Your task to perform on an android device: check the backup settings in the google photos Image 0: 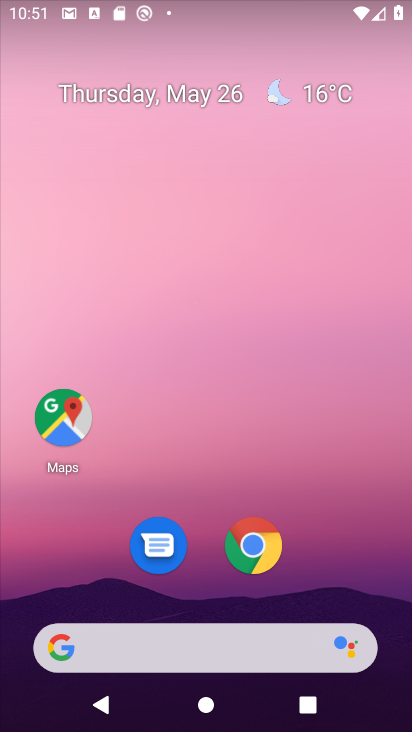
Step 0: press home button
Your task to perform on an android device: check the backup settings in the google photos Image 1: 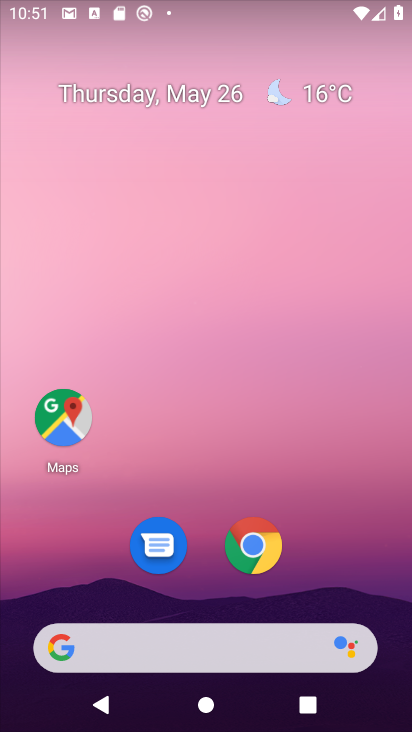
Step 1: drag from (329, 606) to (331, 93)
Your task to perform on an android device: check the backup settings in the google photos Image 2: 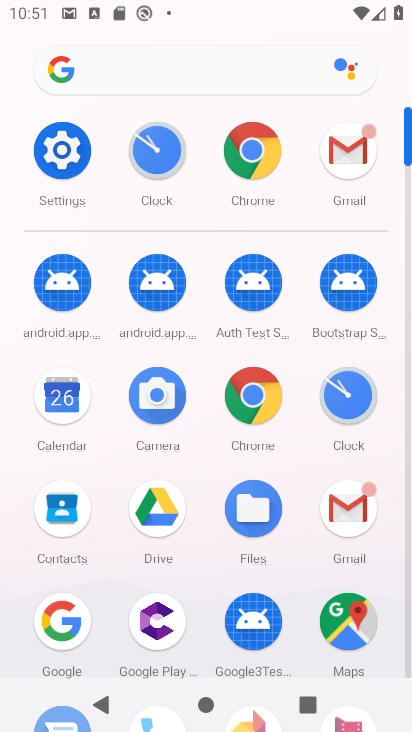
Step 2: drag from (378, 674) to (354, 251)
Your task to perform on an android device: check the backup settings in the google photos Image 3: 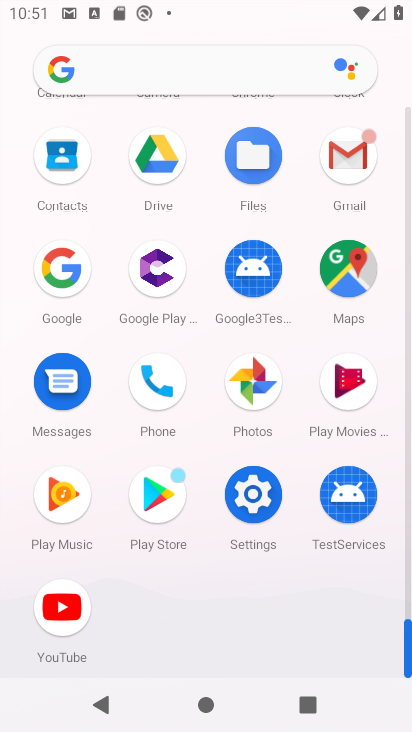
Step 3: click (248, 388)
Your task to perform on an android device: check the backup settings in the google photos Image 4: 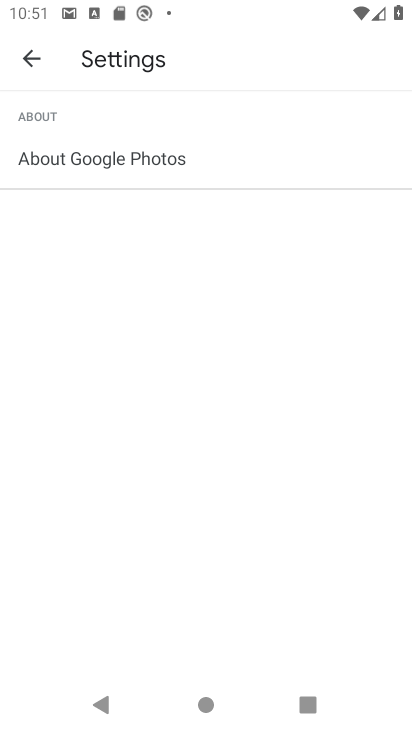
Step 4: click (33, 59)
Your task to perform on an android device: check the backup settings in the google photos Image 5: 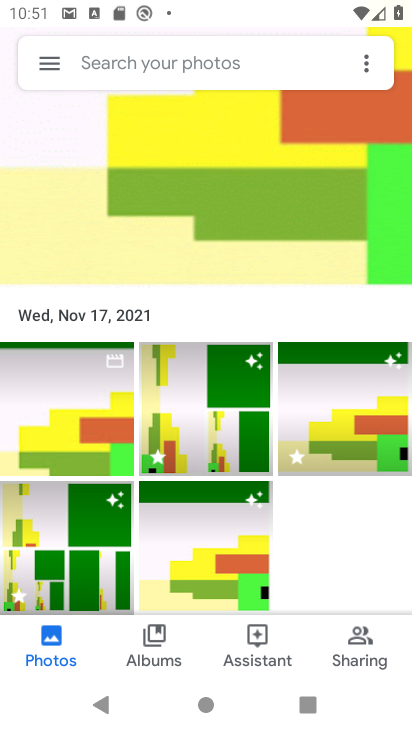
Step 5: click (365, 64)
Your task to perform on an android device: check the backup settings in the google photos Image 6: 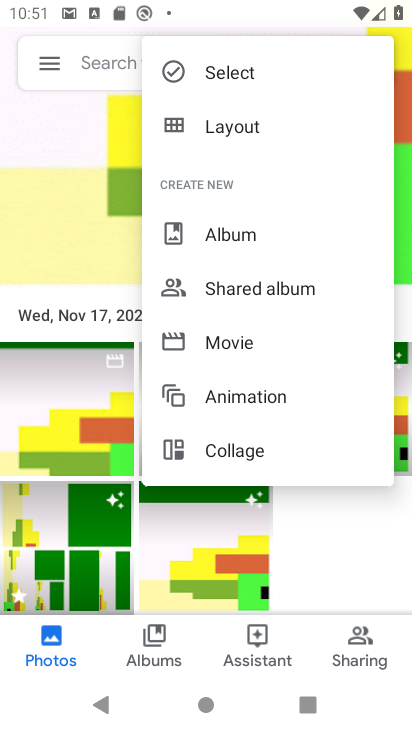
Step 6: drag from (333, 405) to (333, 75)
Your task to perform on an android device: check the backup settings in the google photos Image 7: 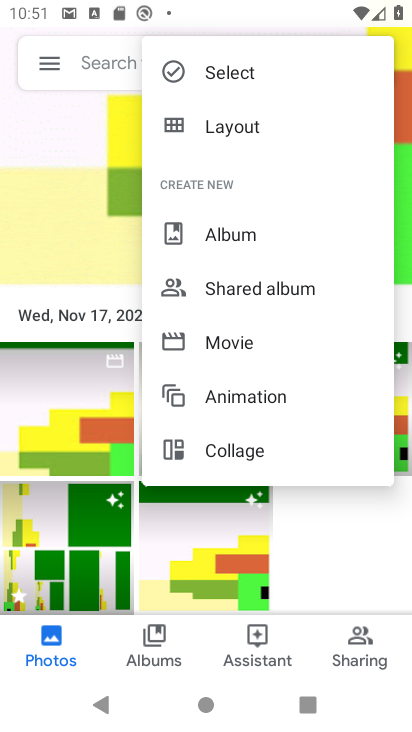
Step 7: click (58, 63)
Your task to perform on an android device: check the backup settings in the google photos Image 8: 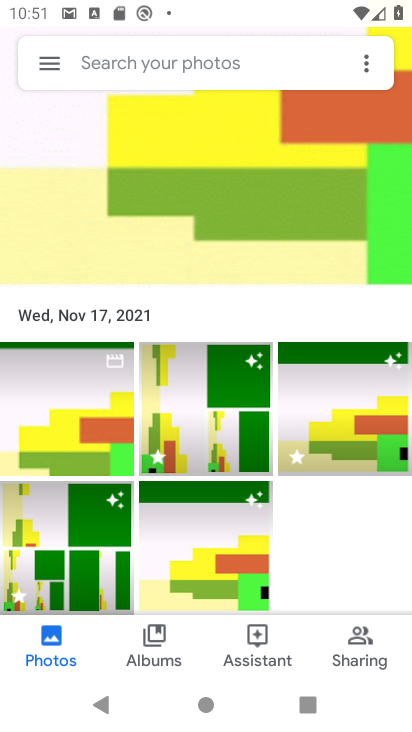
Step 8: click (59, 63)
Your task to perform on an android device: check the backup settings in the google photos Image 9: 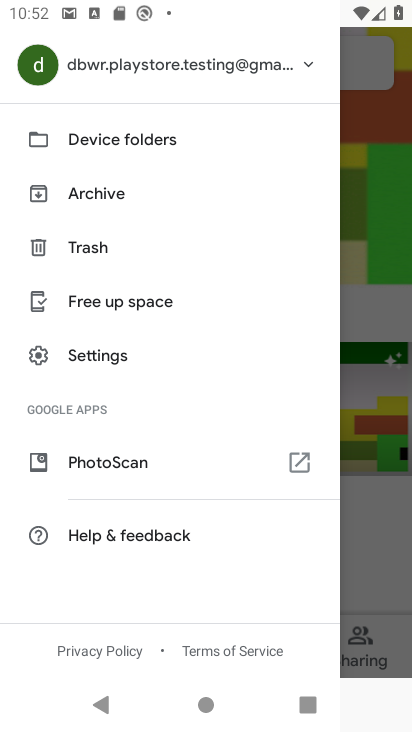
Step 9: click (105, 360)
Your task to perform on an android device: check the backup settings in the google photos Image 10: 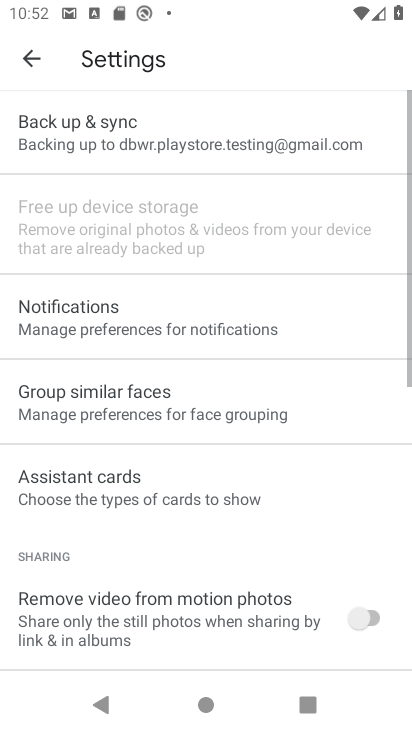
Step 10: click (71, 129)
Your task to perform on an android device: check the backup settings in the google photos Image 11: 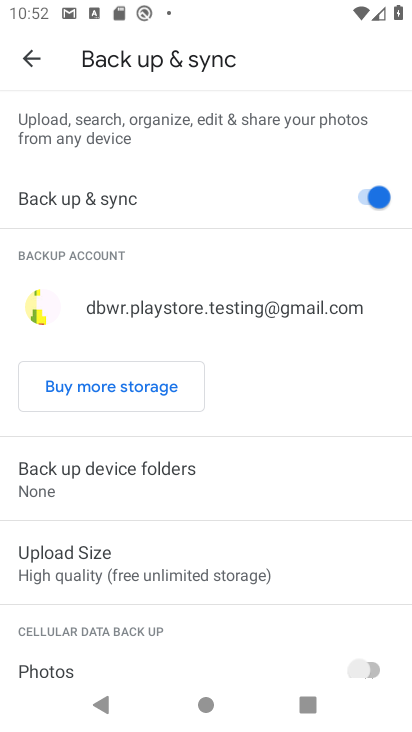
Step 11: task complete